Your task to perform on an android device: open chrome privacy settings Image 0: 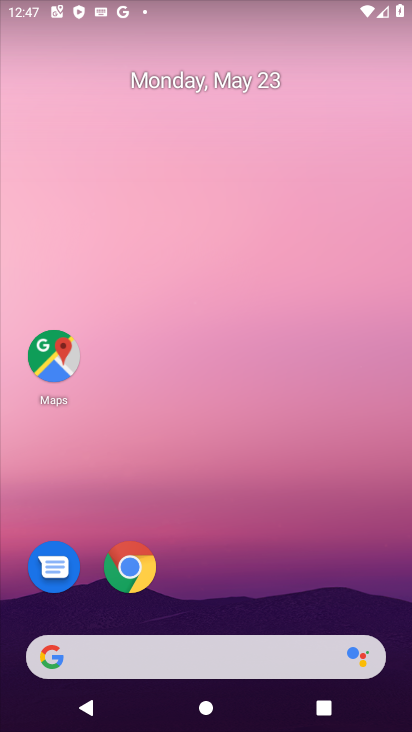
Step 0: drag from (231, 583) to (193, 127)
Your task to perform on an android device: open chrome privacy settings Image 1: 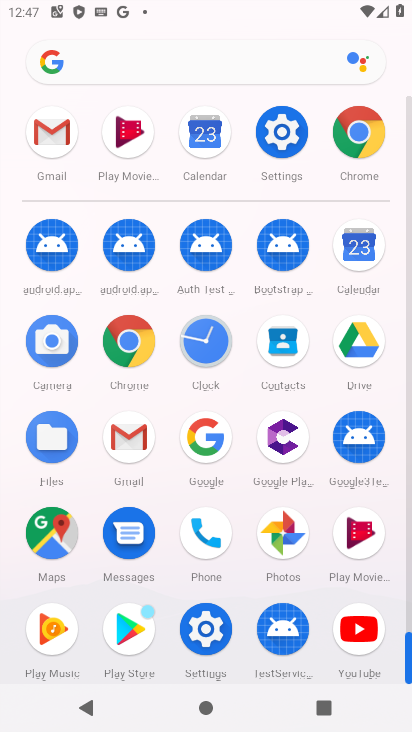
Step 1: click (358, 141)
Your task to perform on an android device: open chrome privacy settings Image 2: 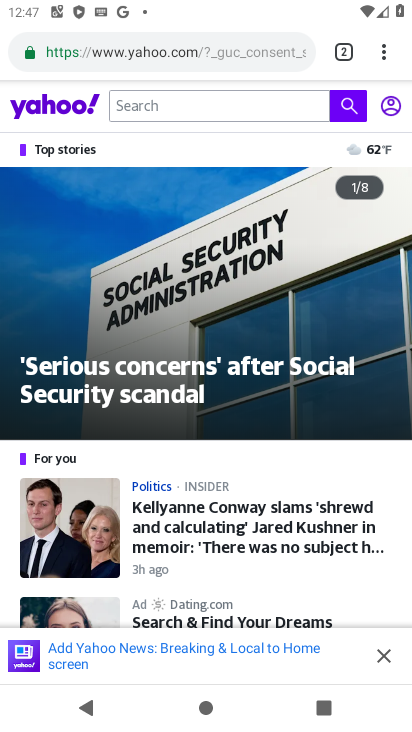
Step 2: click (383, 70)
Your task to perform on an android device: open chrome privacy settings Image 3: 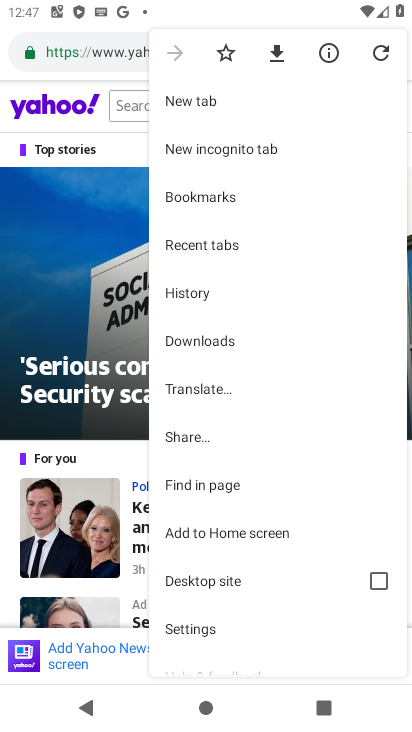
Step 3: click (224, 629)
Your task to perform on an android device: open chrome privacy settings Image 4: 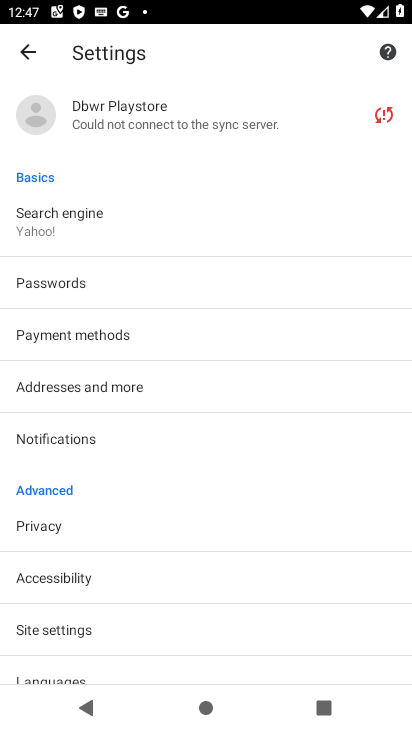
Step 4: click (167, 529)
Your task to perform on an android device: open chrome privacy settings Image 5: 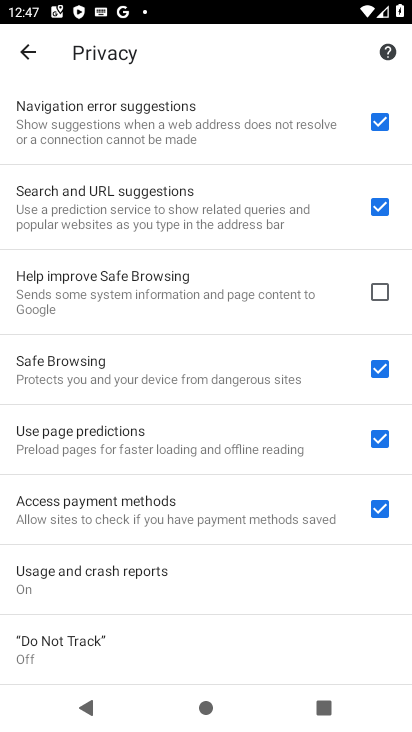
Step 5: task complete